Your task to perform on an android device: turn off location history Image 0: 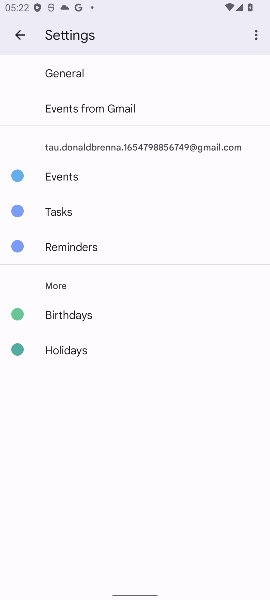
Step 0: press home button
Your task to perform on an android device: turn off location history Image 1: 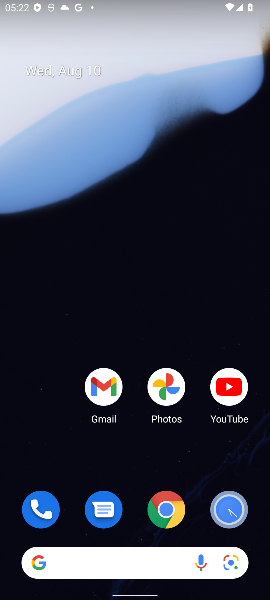
Step 1: drag from (151, 479) to (183, 123)
Your task to perform on an android device: turn off location history Image 2: 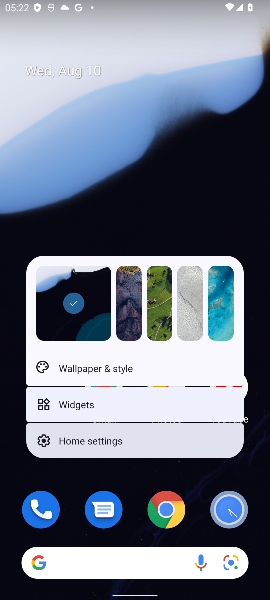
Step 2: click (126, 485)
Your task to perform on an android device: turn off location history Image 3: 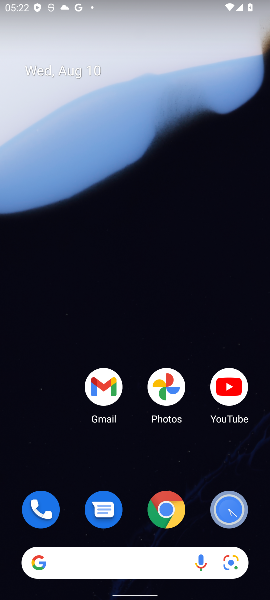
Step 3: drag from (126, 484) to (230, 65)
Your task to perform on an android device: turn off location history Image 4: 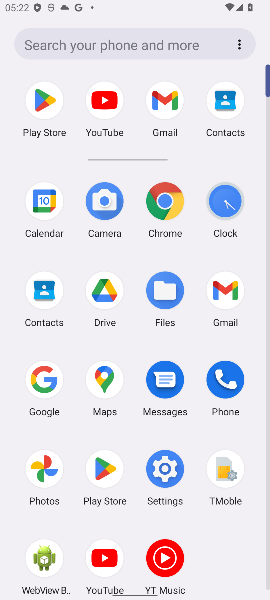
Step 4: click (166, 466)
Your task to perform on an android device: turn off location history Image 5: 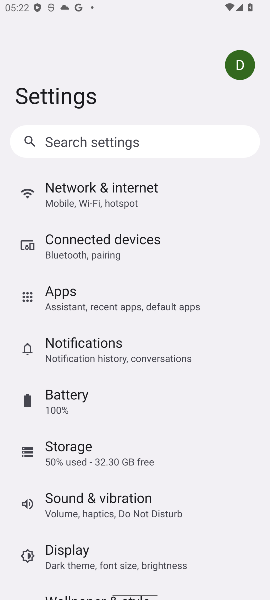
Step 5: drag from (211, 492) to (242, 287)
Your task to perform on an android device: turn off location history Image 6: 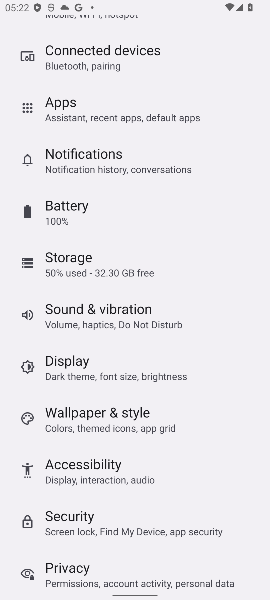
Step 6: drag from (214, 490) to (263, 277)
Your task to perform on an android device: turn off location history Image 7: 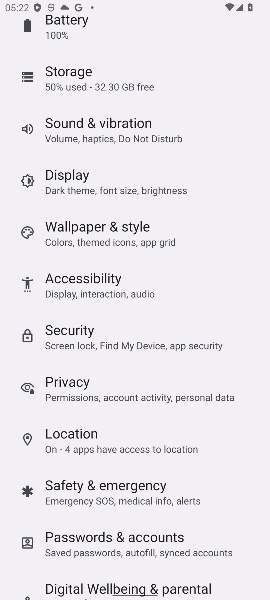
Step 7: click (103, 444)
Your task to perform on an android device: turn off location history Image 8: 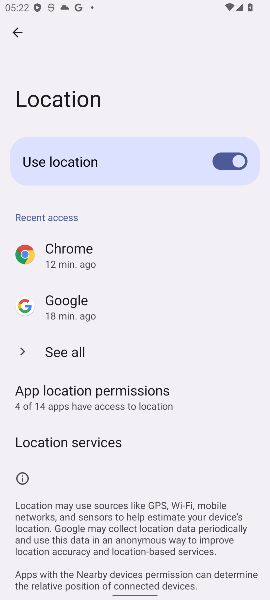
Step 8: click (103, 443)
Your task to perform on an android device: turn off location history Image 9: 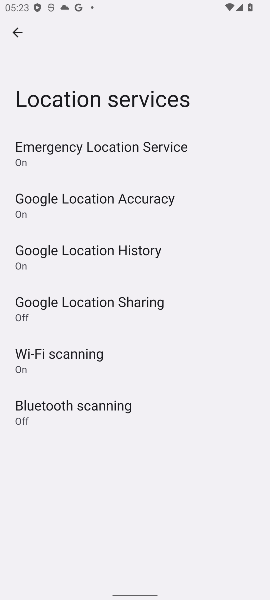
Step 9: click (136, 249)
Your task to perform on an android device: turn off location history Image 10: 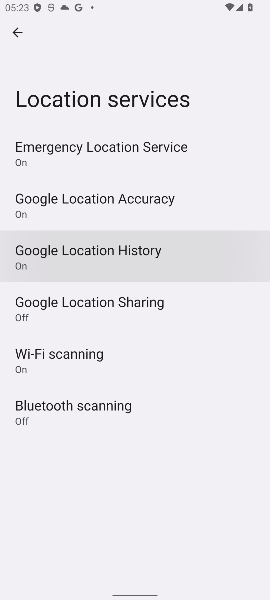
Step 10: click (136, 249)
Your task to perform on an android device: turn off location history Image 11: 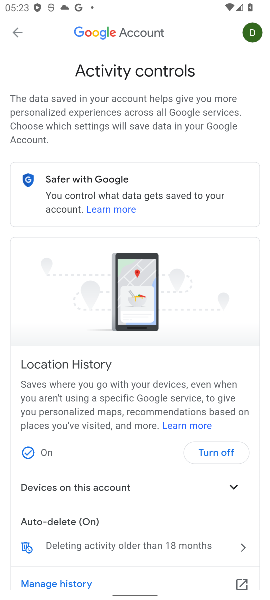
Step 11: click (228, 446)
Your task to perform on an android device: turn off location history Image 12: 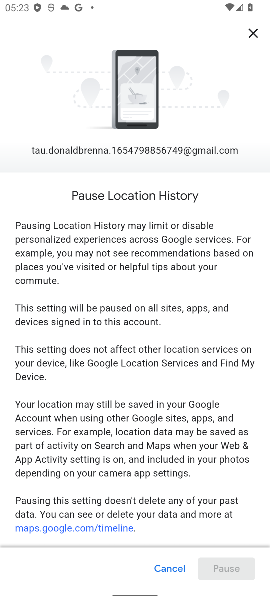
Step 12: drag from (204, 476) to (213, 93)
Your task to perform on an android device: turn off location history Image 13: 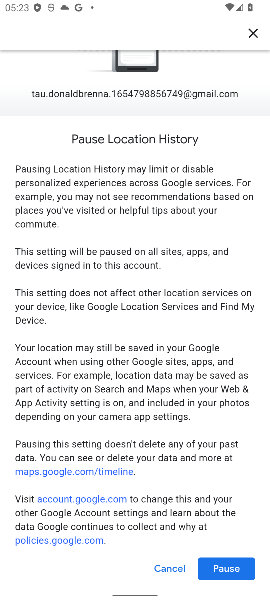
Step 13: click (226, 559)
Your task to perform on an android device: turn off location history Image 14: 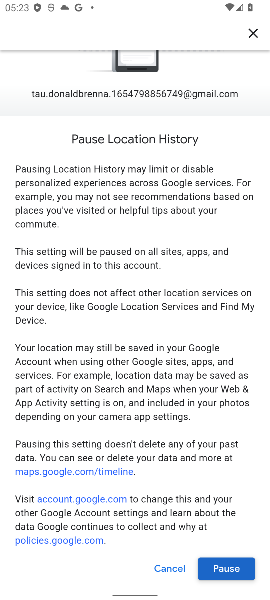
Step 14: click (224, 567)
Your task to perform on an android device: turn off location history Image 15: 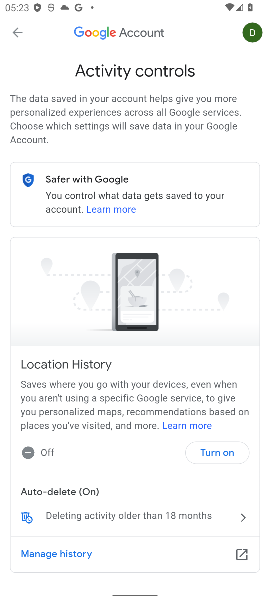
Step 15: task complete